Your task to perform on an android device: Open location settings Image 0: 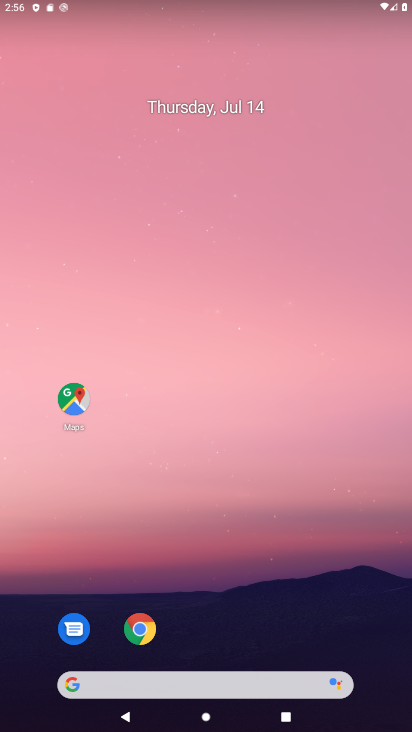
Step 0: drag from (207, 341) to (224, 175)
Your task to perform on an android device: Open location settings Image 1: 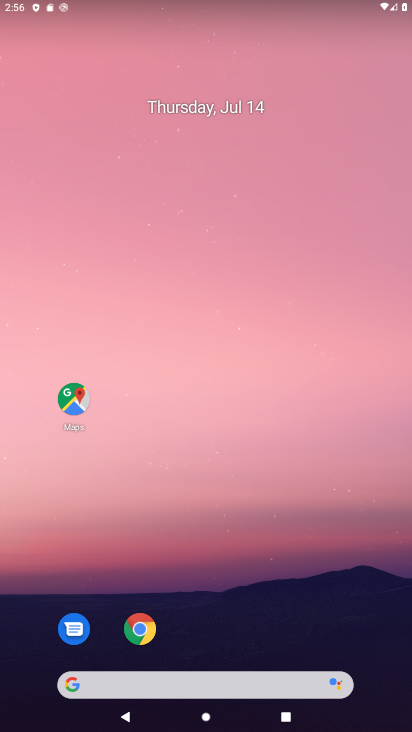
Step 1: drag from (196, 633) to (124, 206)
Your task to perform on an android device: Open location settings Image 2: 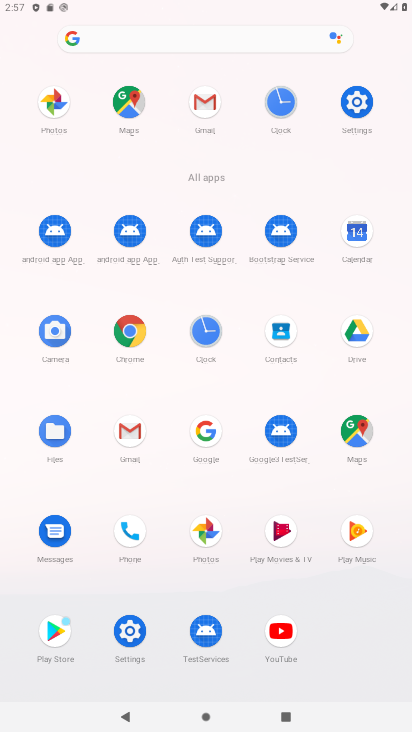
Step 2: click (353, 101)
Your task to perform on an android device: Open location settings Image 3: 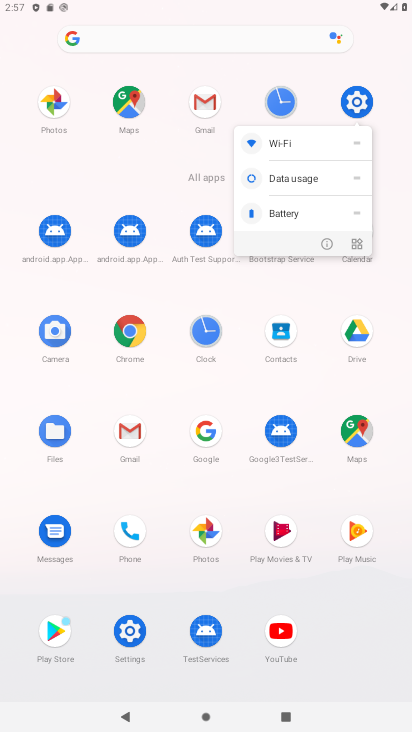
Step 3: click (353, 101)
Your task to perform on an android device: Open location settings Image 4: 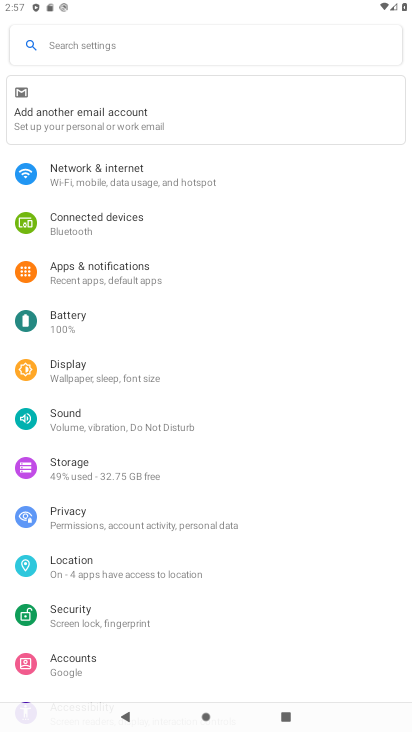
Step 4: click (100, 572)
Your task to perform on an android device: Open location settings Image 5: 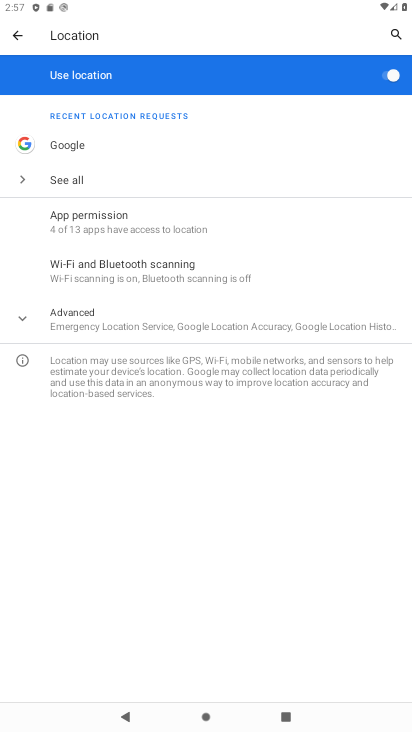
Step 5: task complete